Your task to perform on an android device: Open Google Chrome and open the bookmarks view Image 0: 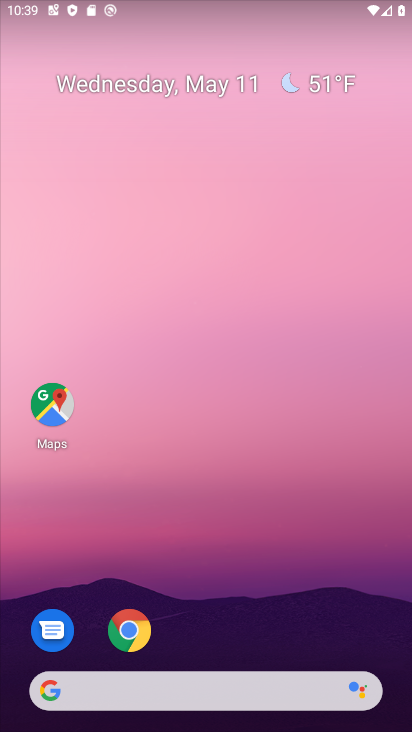
Step 0: click (125, 631)
Your task to perform on an android device: Open Google Chrome and open the bookmarks view Image 1: 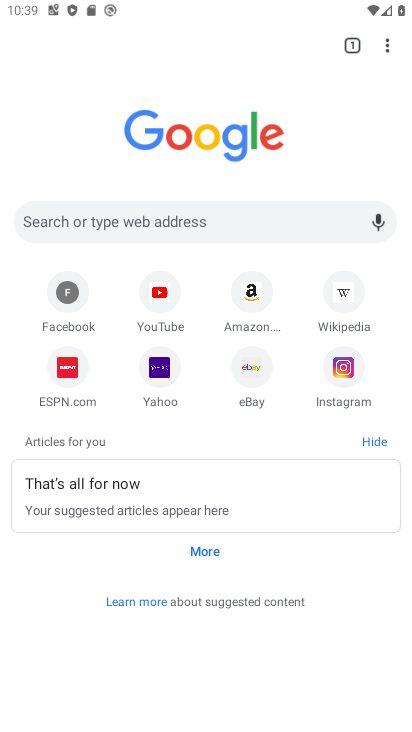
Step 1: click (390, 51)
Your task to perform on an android device: Open Google Chrome and open the bookmarks view Image 2: 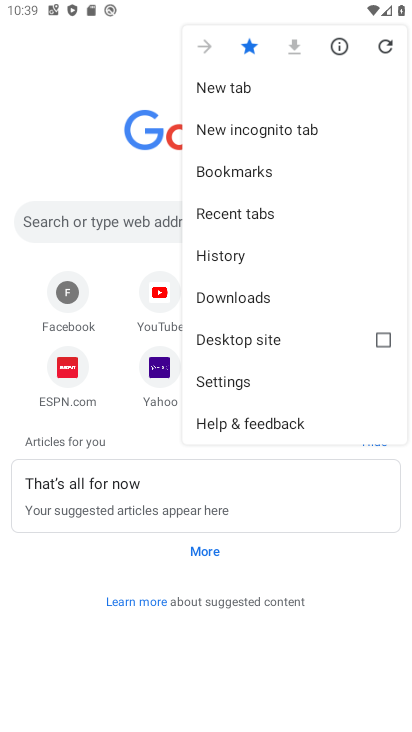
Step 2: click (233, 167)
Your task to perform on an android device: Open Google Chrome and open the bookmarks view Image 3: 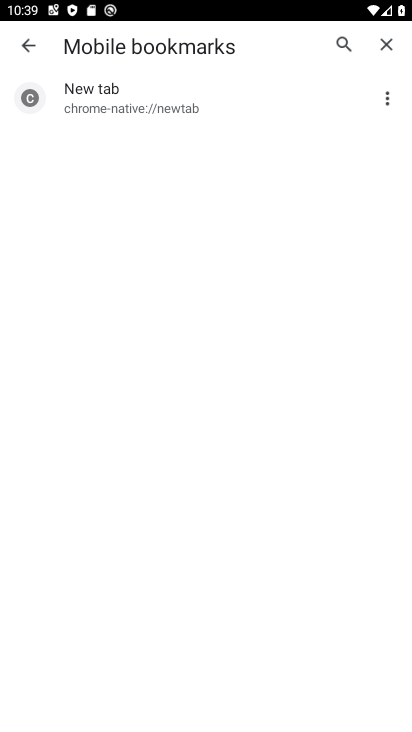
Step 3: task complete